Your task to perform on an android device: turn off improve location accuracy Image 0: 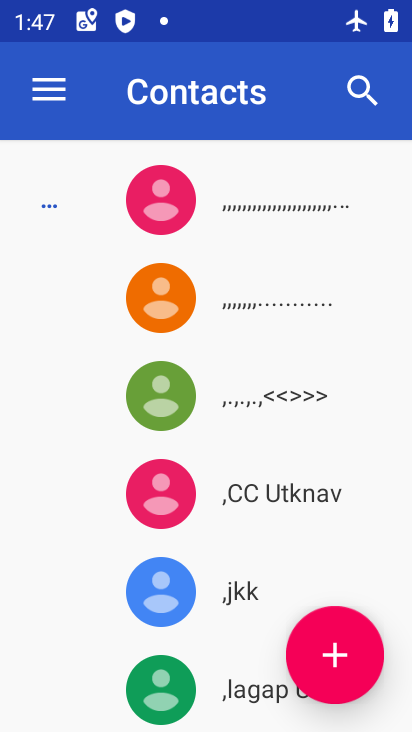
Step 0: press home button
Your task to perform on an android device: turn off improve location accuracy Image 1: 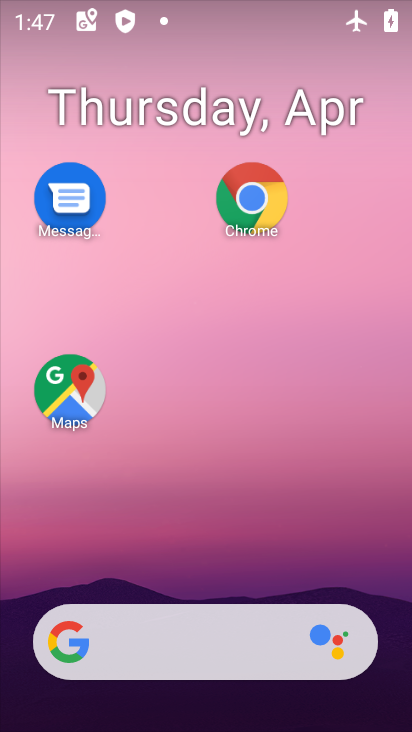
Step 1: drag from (197, 594) to (83, 11)
Your task to perform on an android device: turn off improve location accuracy Image 2: 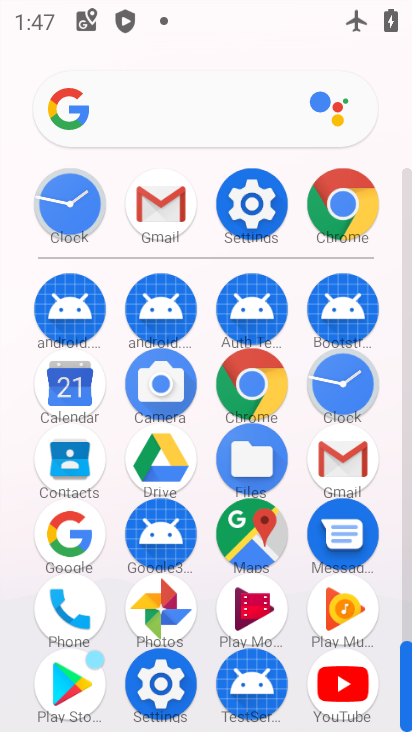
Step 2: click (264, 211)
Your task to perform on an android device: turn off improve location accuracy Image 3: 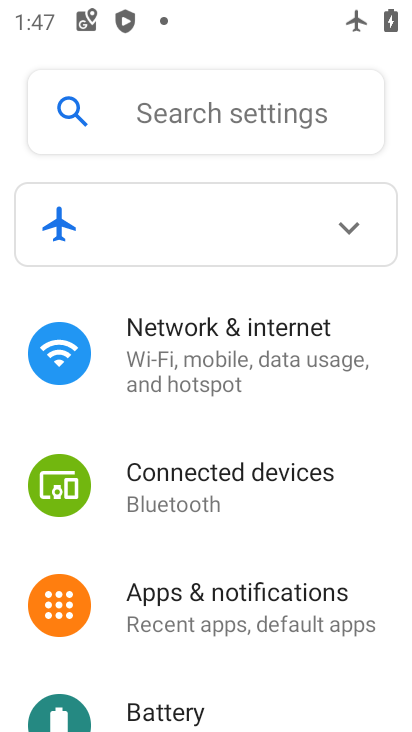
Step 3: drag from (249, 575) to (190, 124)
Your task to perform on an android device: turn off improve location accuracy Image 4: 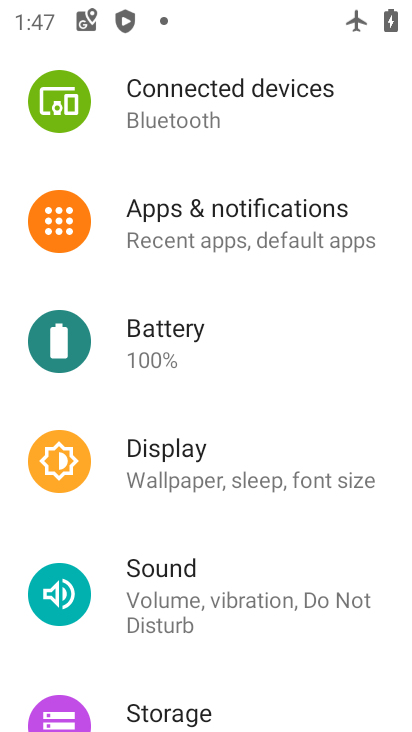
Step 4: drag from (273, 631) to (211, 299)
Your task to perform on an android device: turn off improve location accuracy Image 5: 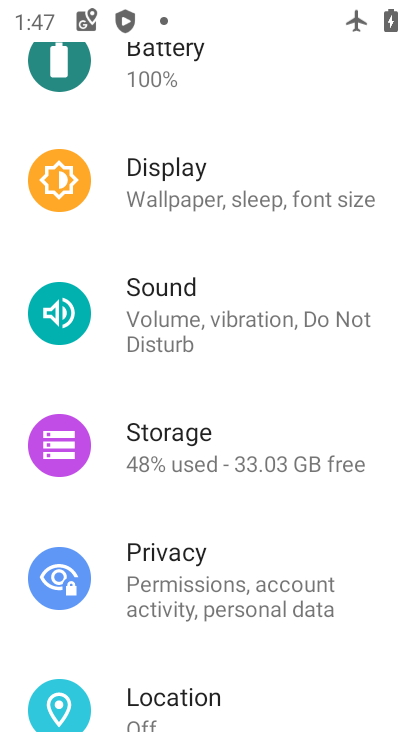
Step 5: drag from (204, 610) to (152, 304)
Your task to perform on an android device: turn off improve location accuracy Image 6: 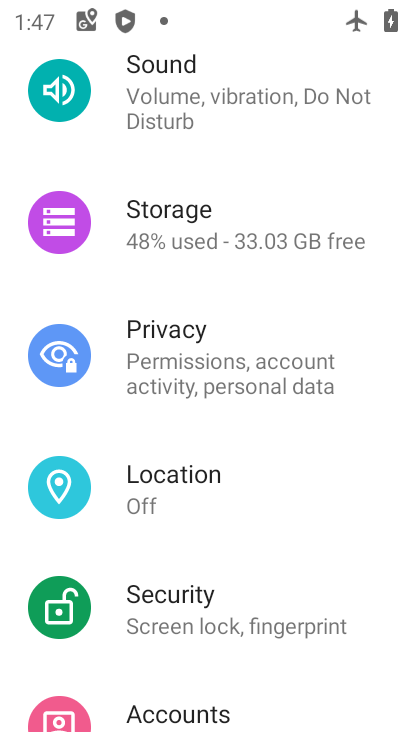
Step 6: click (172, 500)
Your task to perform on an android device: turn off improve location accuracy Image 7: 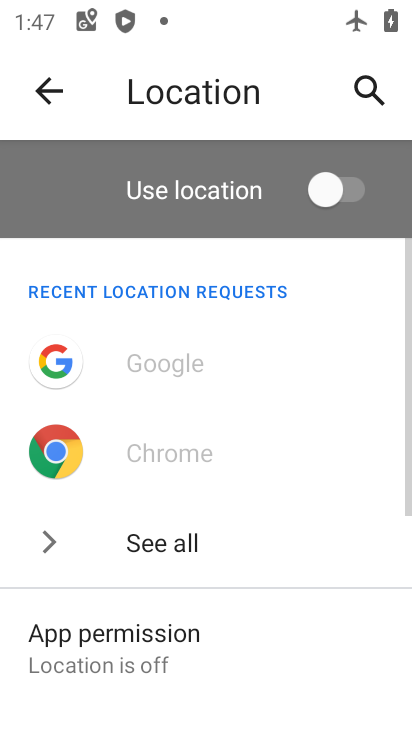
Step 7: drag from (248, 581) to (176, 123)
Your task to perform on an android device: turn off improve location accuracy Image 8: 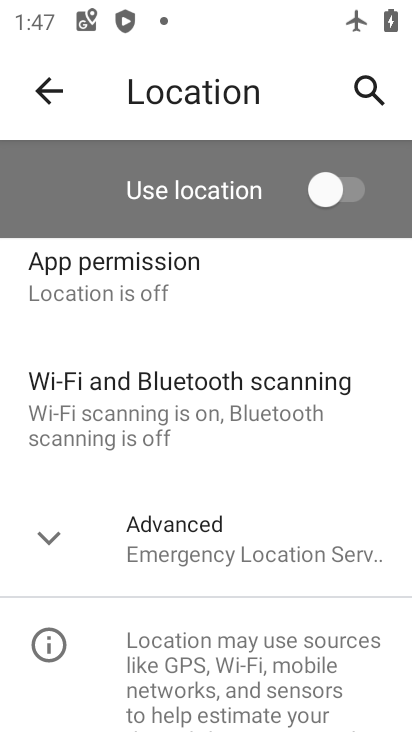
Step 8: click (218, 554)
Your task to perform on an android device: turn off improve location accuracy Image 9: 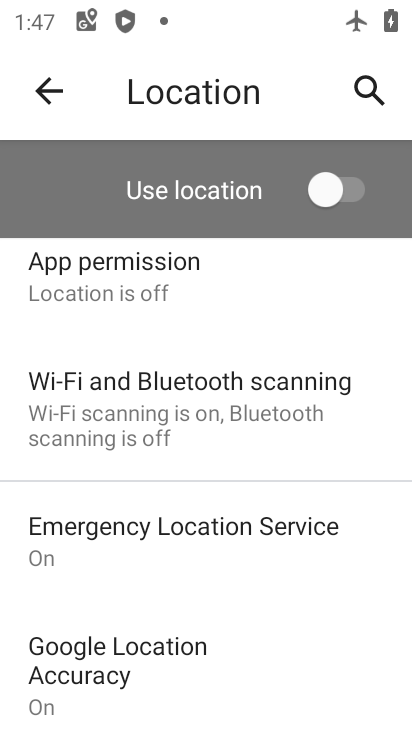
Step 9: drag from (233, 566) to (165, 161)
Your task to perform on an android device: turn off improve location accuracy Image 10: 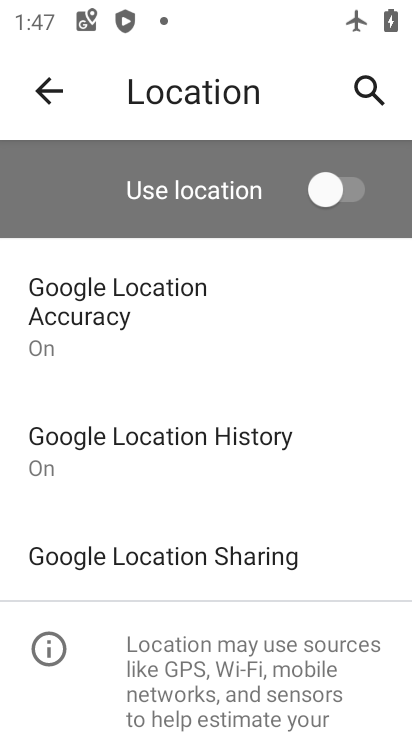
Step 10: click (161, 339)
Your task to perform on an android device: turn off improve location accuracy Image 11: 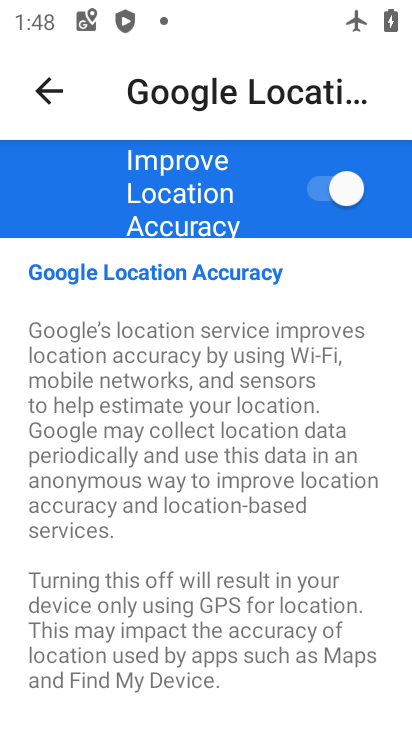
Step 11: click (348, 188)
Your task to perform on an android device: turn off improve location accuracy Image 12: 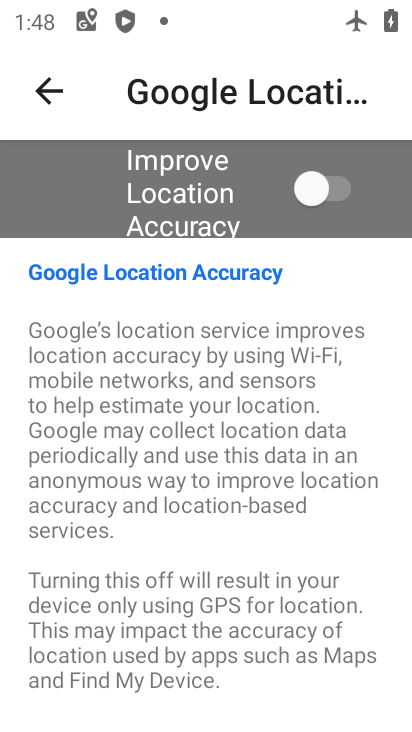
Step 12: task complete